Your task to perform on an android device: check storage Image 0: 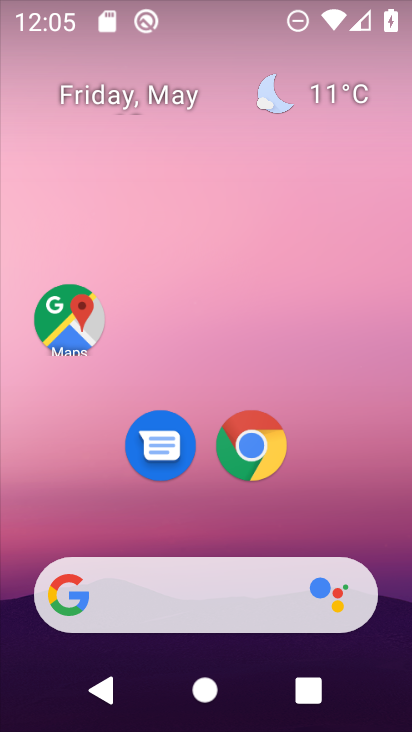
Step 0: drag from (178, 565) to (167, 142)
Your task to perform on an android device: check storage Image 1: 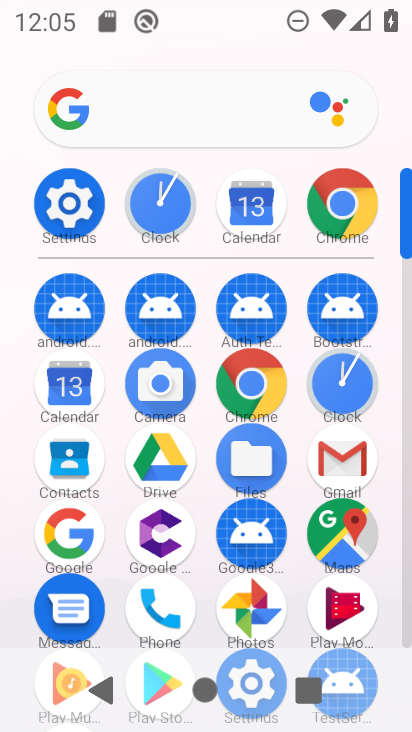
Step 1: click (66, 208)
Your task to perform on an android device: check storage Image 2: 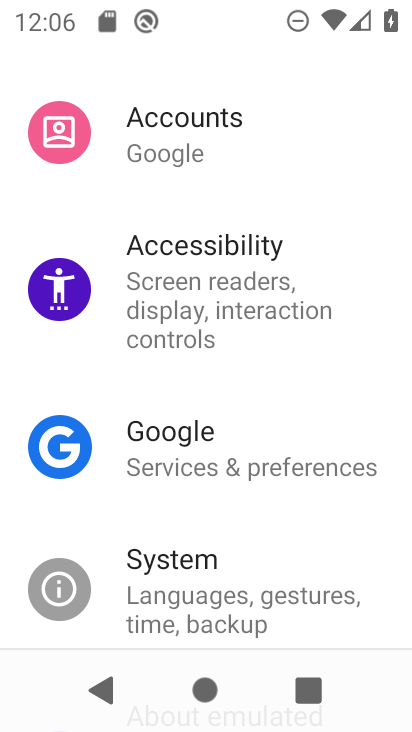
Step 2: drag from (193, 178) to (192, 478)
Your task to perform on an android device: check storage Image 3: 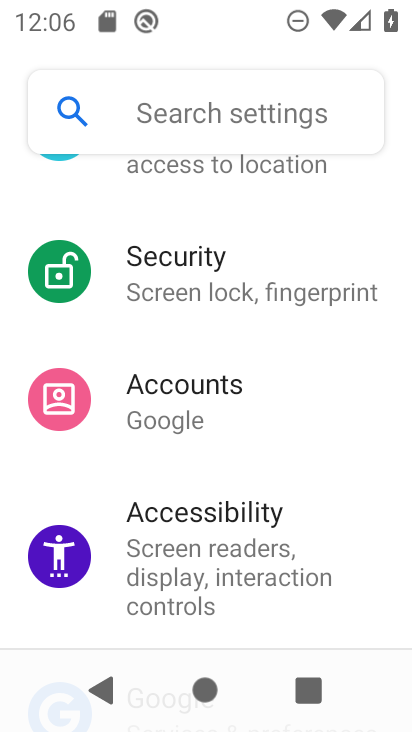
Step 3: drag from (125, 206) to (145, 585)
Your task to perform on an android device: check storage Image 4: 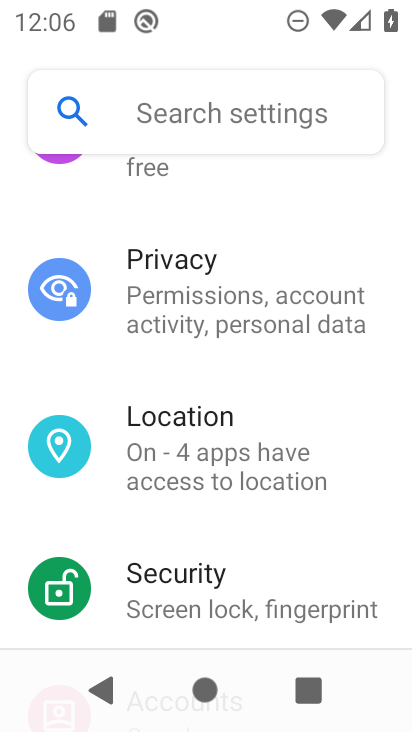
Step 4: drag from (182, 163) to (187, 444)
Your task to perform on an android device: check storage Image 5: 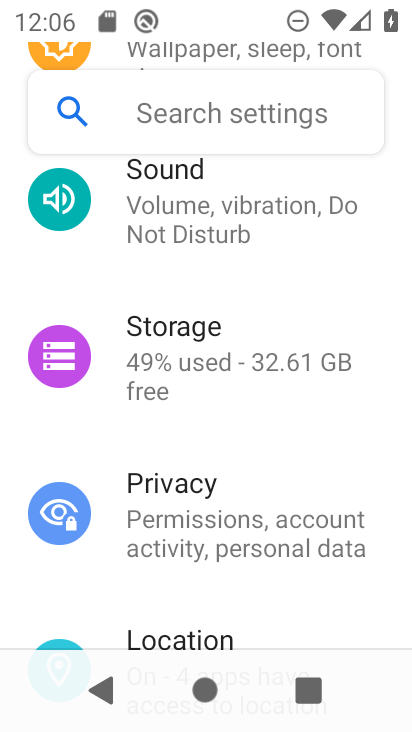
Step 5: click (134, 357)
Your task to perform on an android device: check storage Image 6: 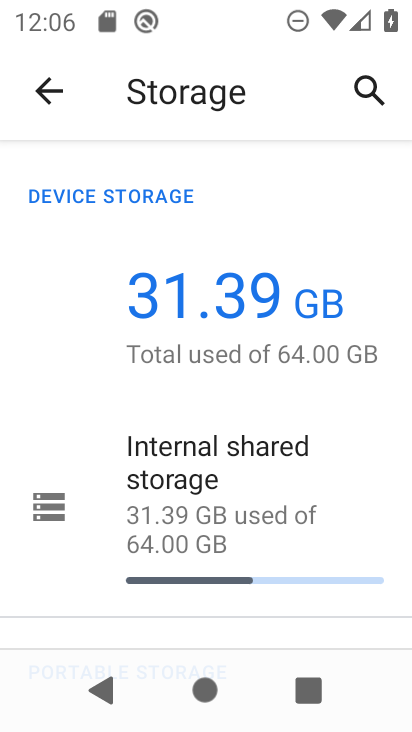
Step 6: task complete